Your task to perform on an android device: Go to wifi settings Image 0: 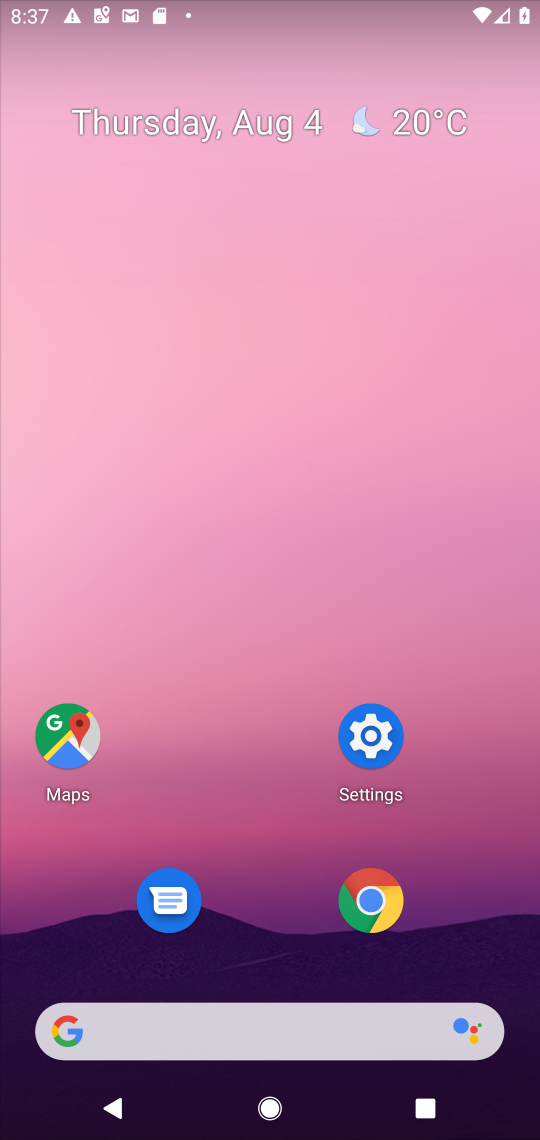
Step 0: press home button
Your task to perform on an android device: Go to wifi settings Image 1: 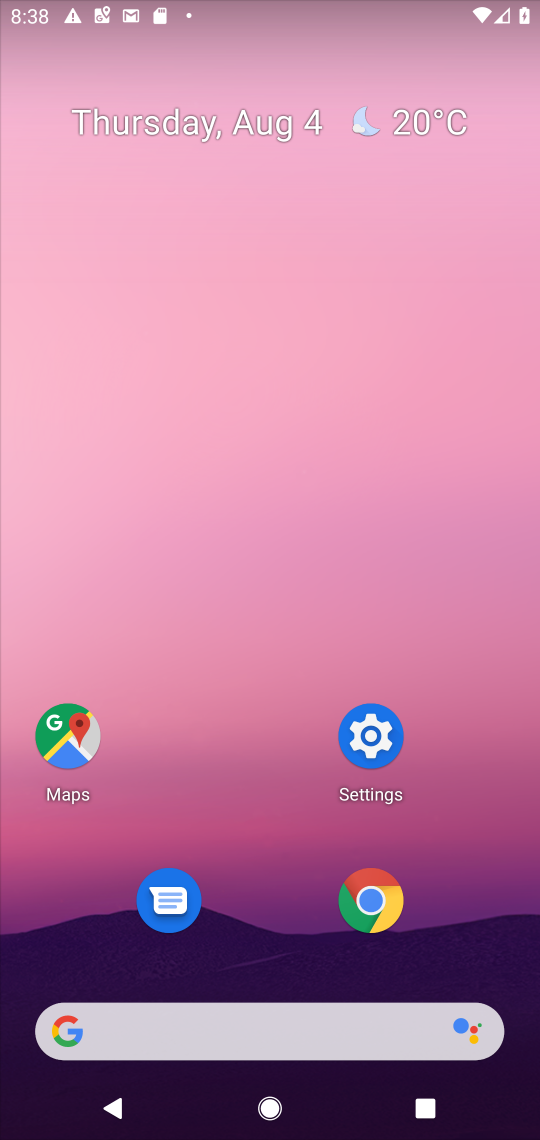
Step 1: click (379, 733)
Your task to perform on an android device: Go to wifi settings Image 2: 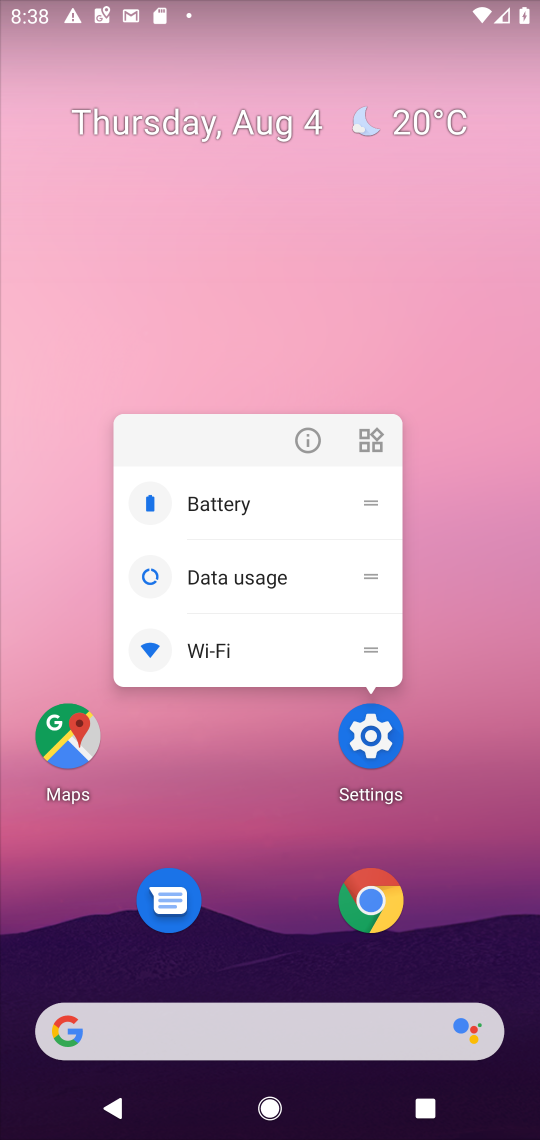
Step 2: click (379, 733)
Your task to perform on an android device: Go to wifi settings Image 3: 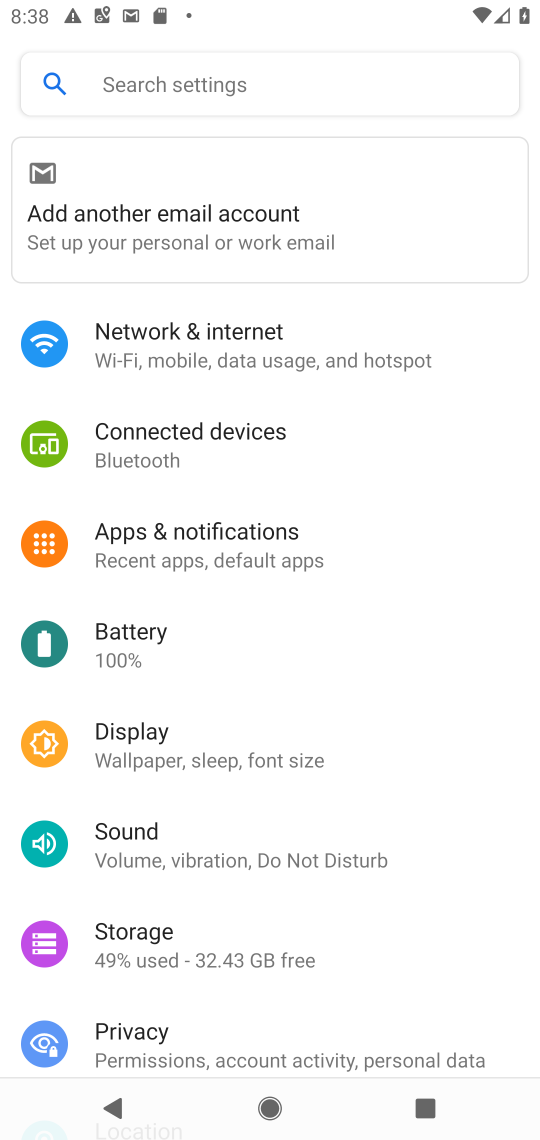
Step 3: click (237, 331)
Your task to perform on an android device: Go to wifi settings Image 4: 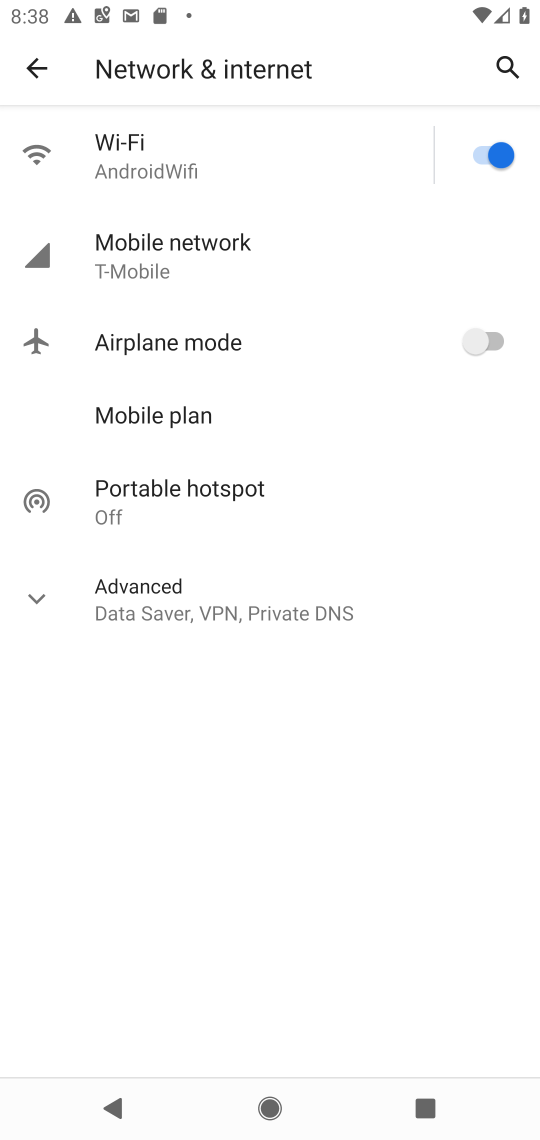
Step 4: click (149, 158)
Your task to perform on an android device: Go to wifi settings Image 5: 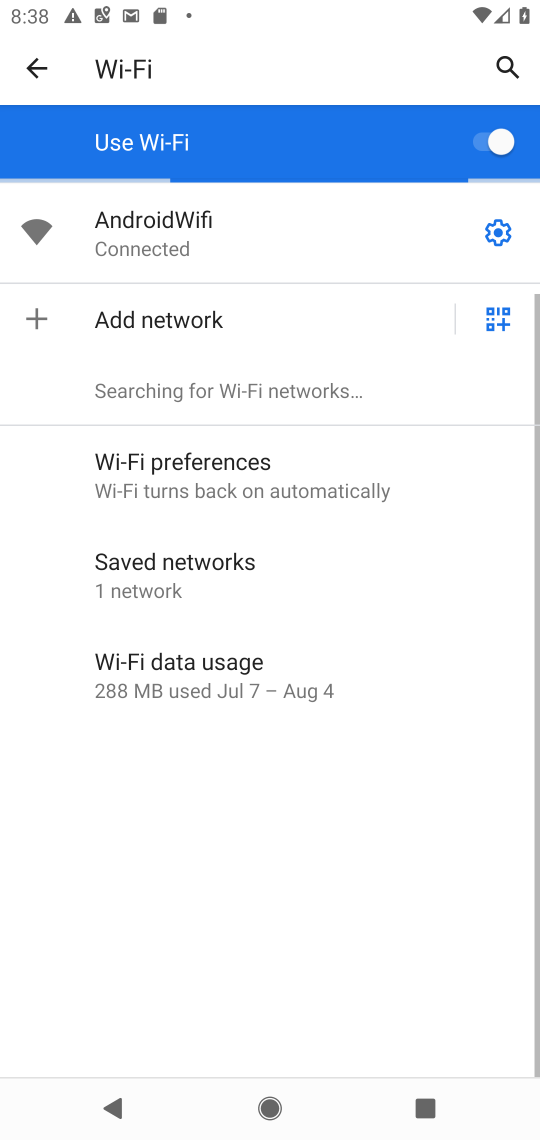
Step 5: task complete